Your task to perform on an android device: turn smart compose on in the gmail app Image 0: 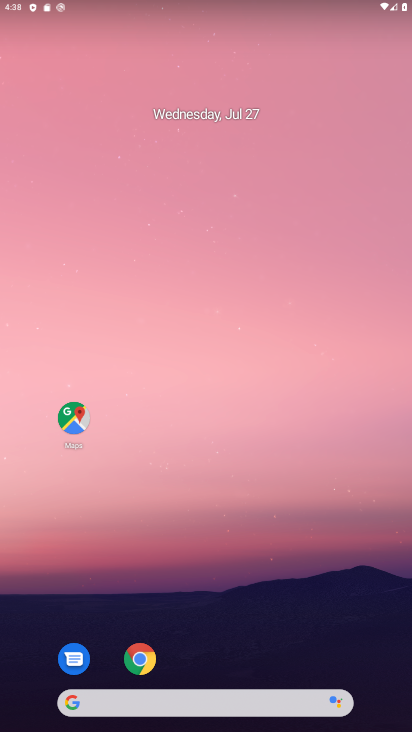
Step 0: drag from (294, 643) to (352, 165)
Your task to perform on an android device: turn smart compose on in the gmail app Image 1: 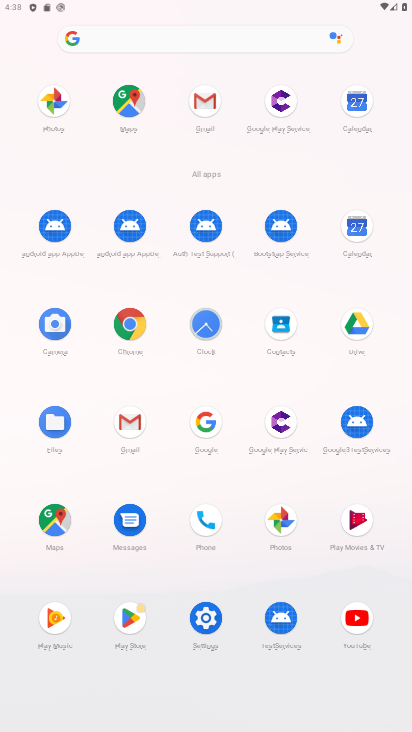
Step 1: click (121, 418)
Your task to perform on an android device: turn smart compose on in the gmail app Image 2: 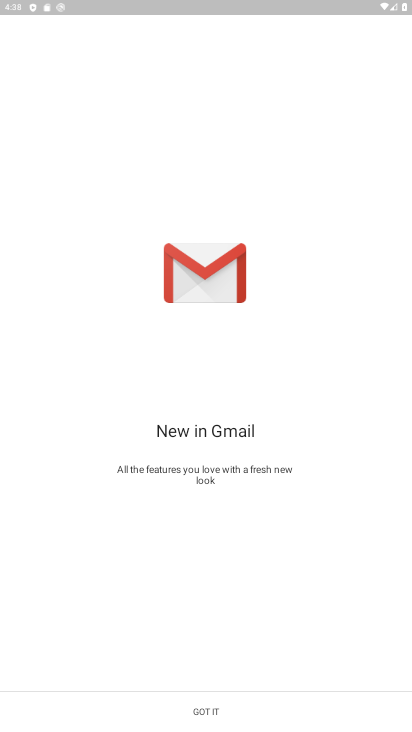
Step 2: click (229, 702)
Your task to perform on an android device: turn smart compose on in the gmail app Image 3: 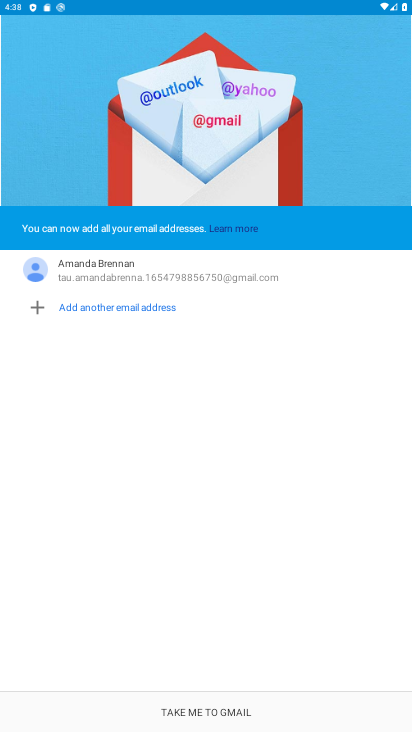
Step 3: click (229, 702)
Your task to perform on an android device: turn smart compose on in the gmail app Image 4: 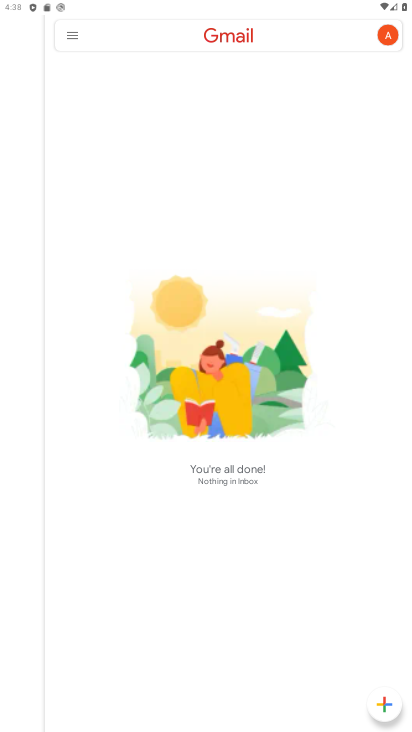
Step 4: click (68, 35)
Your task to perform on an android device: turn smart compose on in the gmail app Image 5: 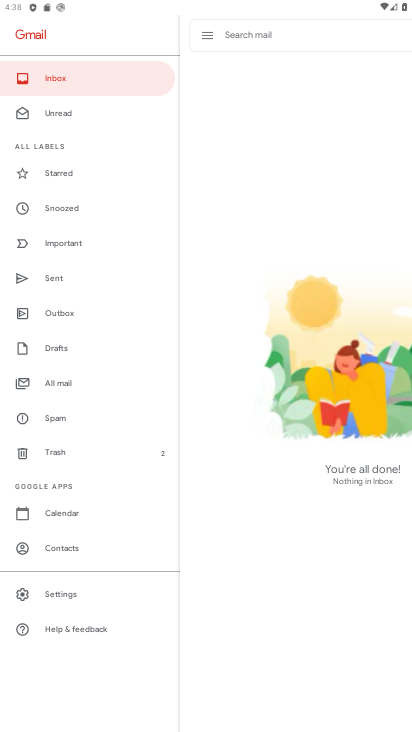
Step 5: click (70, 594)
Your task to perform on an android device: turn smart compose on in the gmail app Image 6: 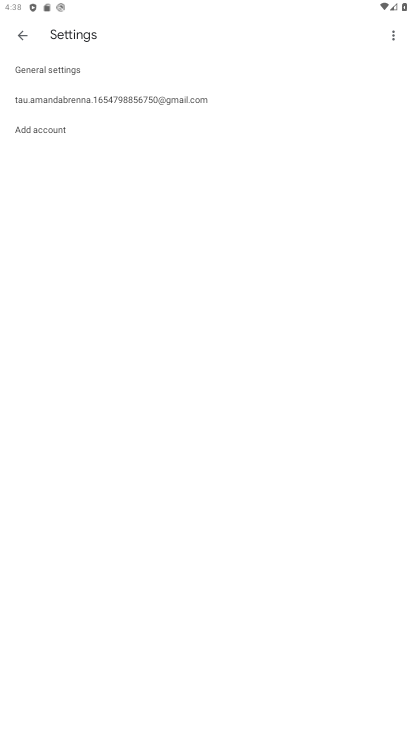
Step 6: click (175, 106)
Your task to perform on an android device: turn smart compose on in the gmail app Image 7: 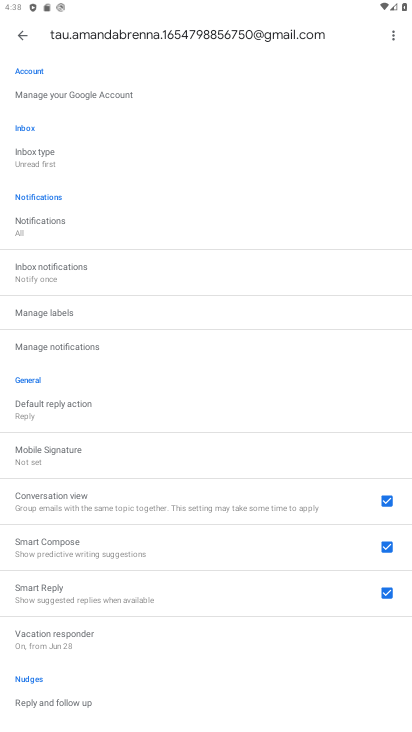
Step 7: task complete